Your task to perform on an android device: Go to location settings Image 0: 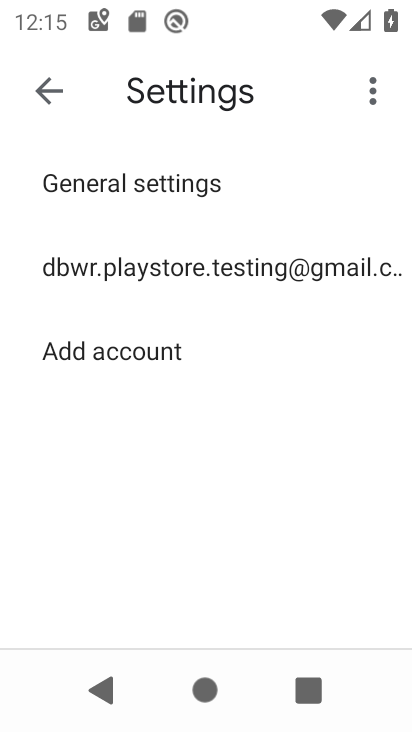
Step 0: press home button
Your task to perform on an android device: Go to location settings Image 1: 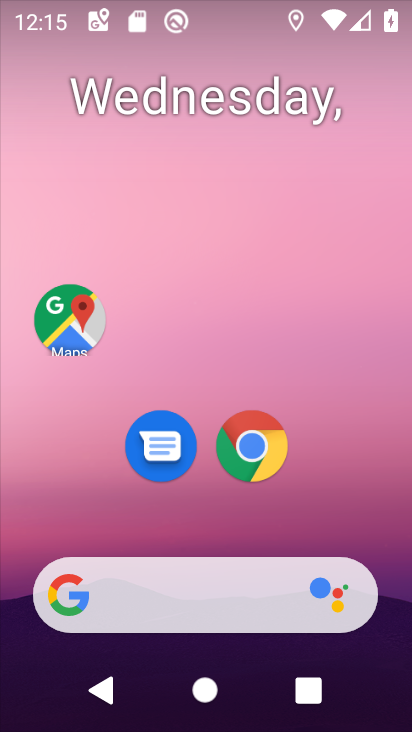
Step 1: drag from (314, 523) to (310, 0)
Your task to perform on an android device: Go to location settings Image 2: 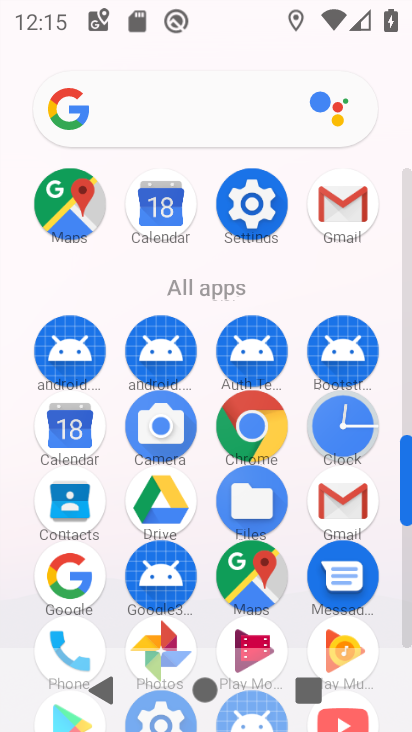
Step 2: click (255, 198)
Your task to perform on an android device: Go to location settings Image 3: 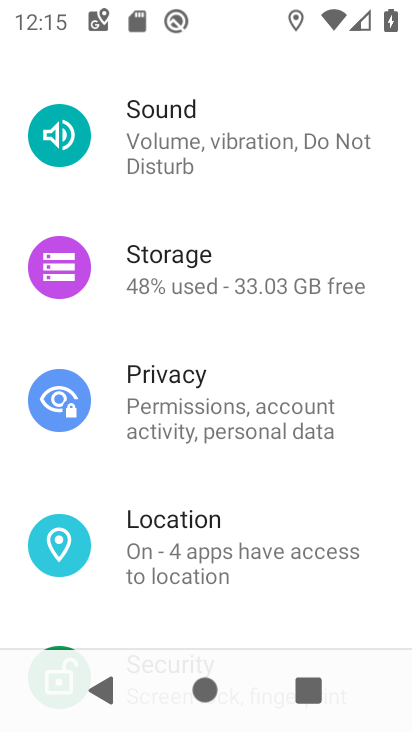
Step 3: click (182, 540)
Your task to perform on an android device: Go to location settings Image 4: 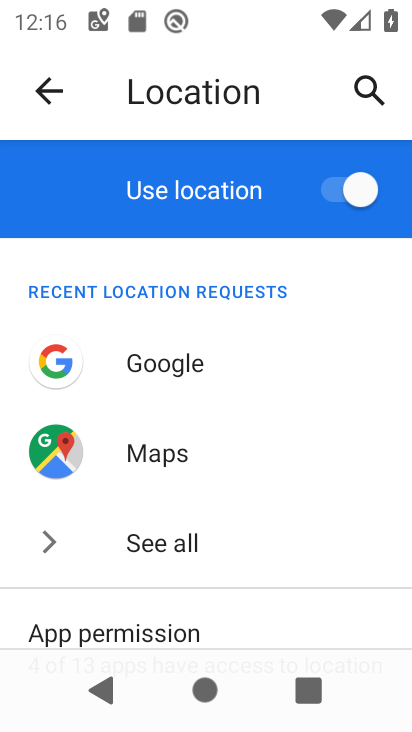
Step 4: task complete